Your task to perform on an android device: Go to network settings Image 0: 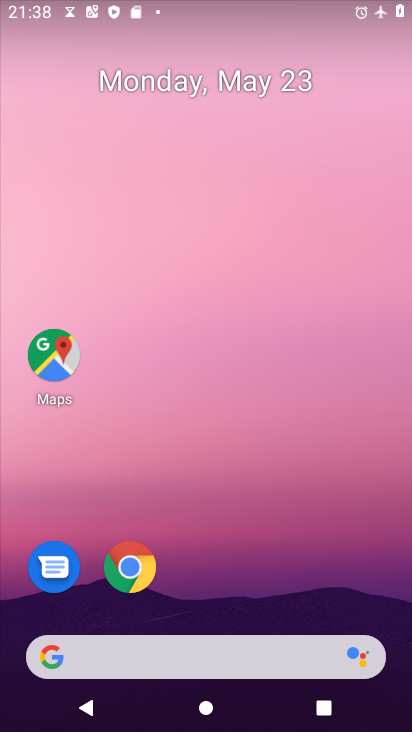
Step 0: drag from (256, 608) to (260, 166)
Your task to perform on an android device: Go to network settings Image 1: 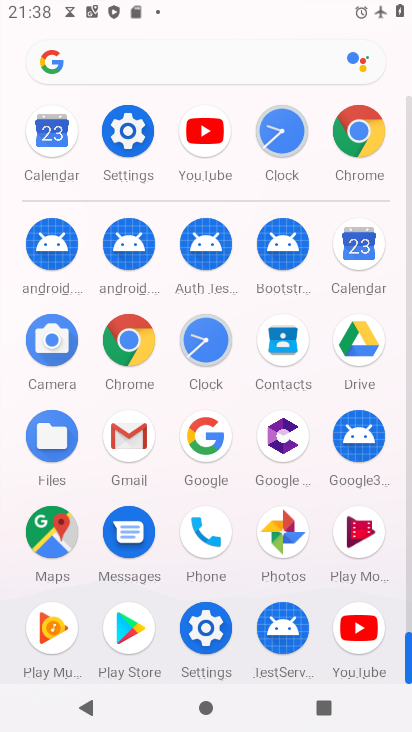
Step 1: click (139, 131)
Your task to perform on an android device: Go to network settings Image 2: 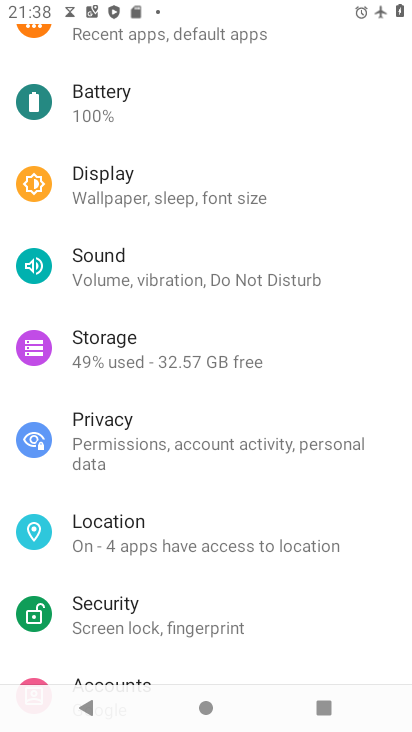
Step 2: drag from (168, 80) to (191, 522)
Your task to perform on an android device: Go to network settings Image 3: 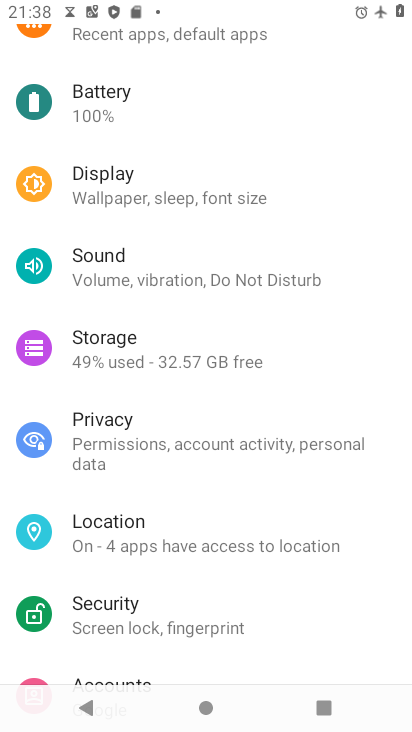
Step 3: drag from (194, 229) to (218, 364)
Your task to perform on an android device: Go to network settings Image 4: 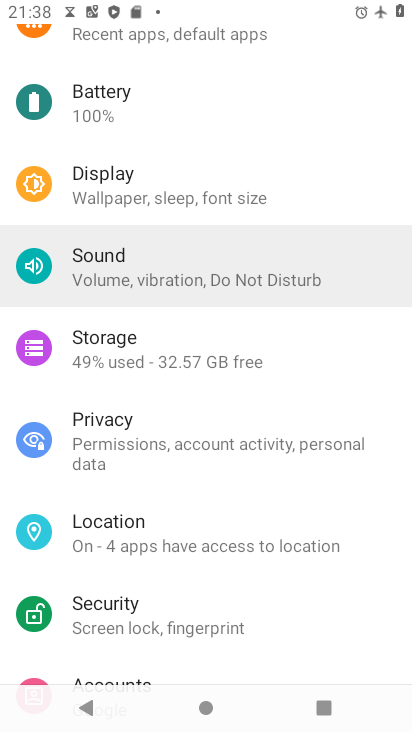
Step 4: drag from (211, 119) to (212, 487)
Your task to perform on an android device: Go to network settings Image 5: 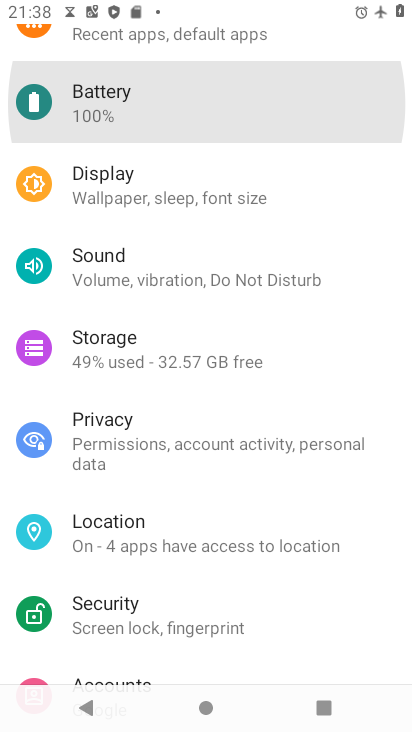
Step 5: drag from (221, 141) to (227, 508)
Your task to perform on an android device: Go to network settings Image 6: 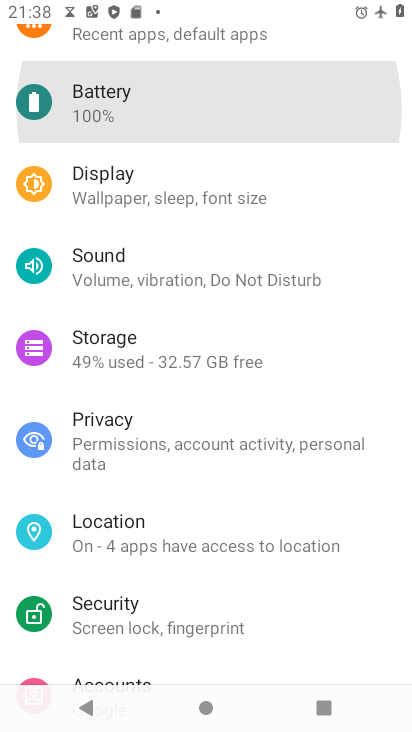
Step 6: drag from (203, 168) to (216, 475)
Your task to perform on an android device: Go to network settings Image 7: 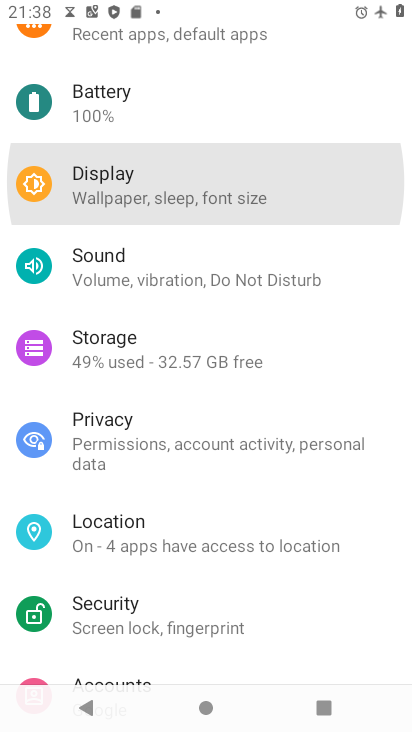
Step 7: drag from (193, 177) to (215, 458)
Your task to perform on an android device: Go to network settings Image 8: 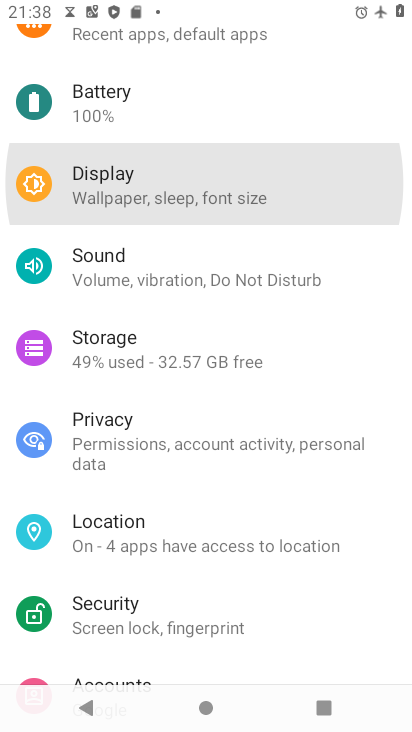
Step 8: drag from (151, 97) to (184, 427)
Your task to perform on an android device: Go to network settings Image 9: 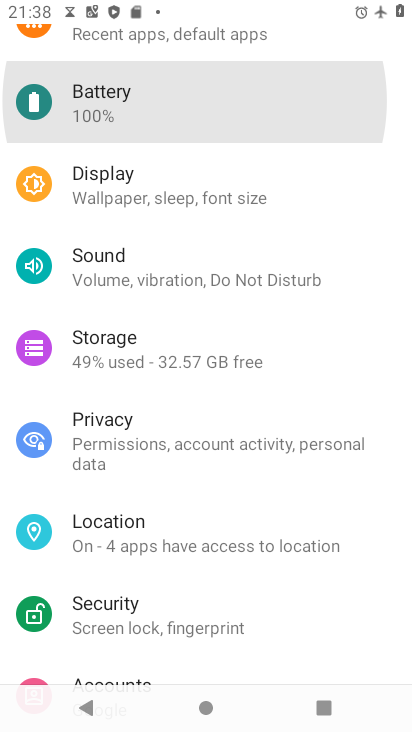
Step 9: drag from (156, 116) to (164, 391)
Your task to perform on an android device: Go to network settings Image 10: 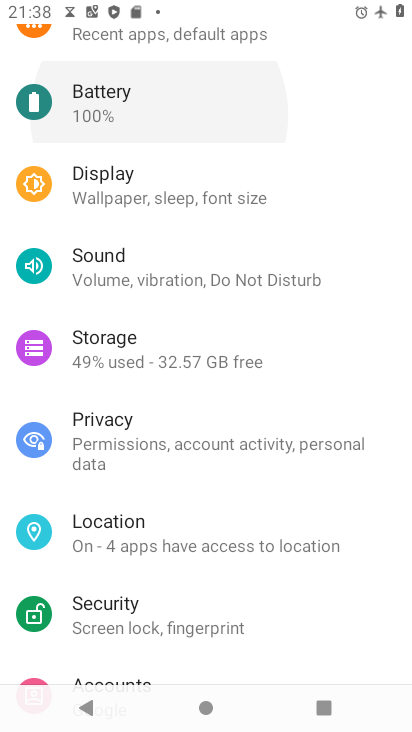
Step 10: drag from (136, 103) to (167, 396)
Your task to perform on an android device: Go to network settings Image 11: 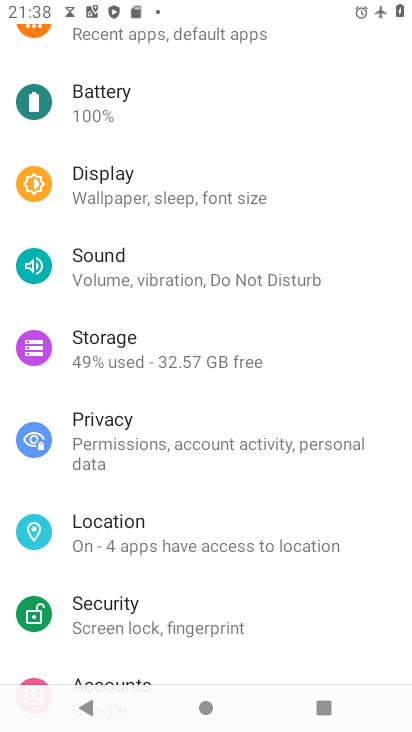
Step 11: drag from (181, 198) to (193, 402)
Your task to perform on an android device: Go to network settings Image 12: 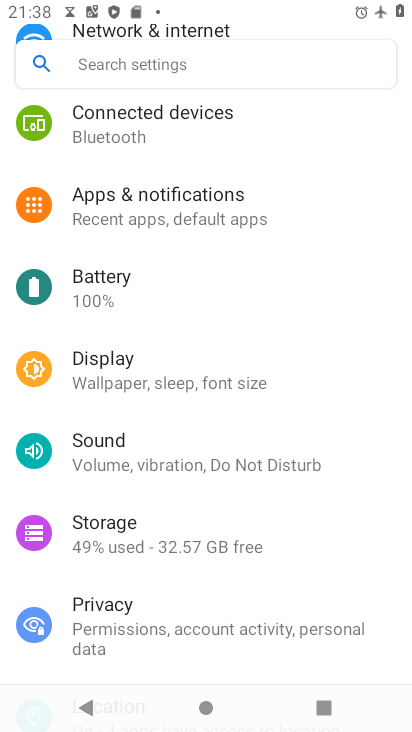
Step 12: drag from (187, 154) to (209, 274)
Your task to perform on an android device: Go to network settings Image 13: 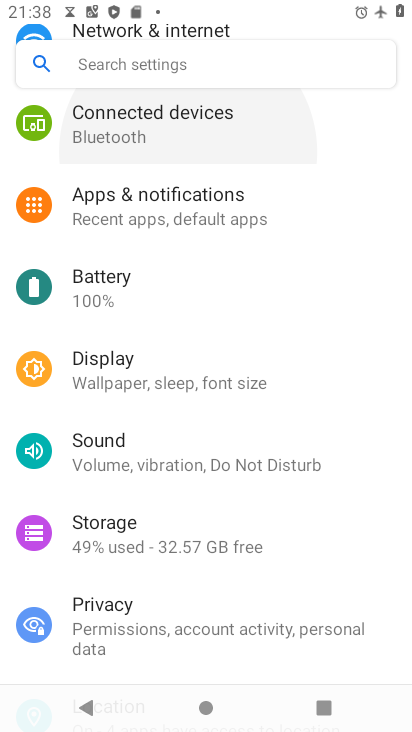
Step 13: drag from (221, 184) to (241, 415)
Your task to perform on an android device: Go to network settings Image 14: 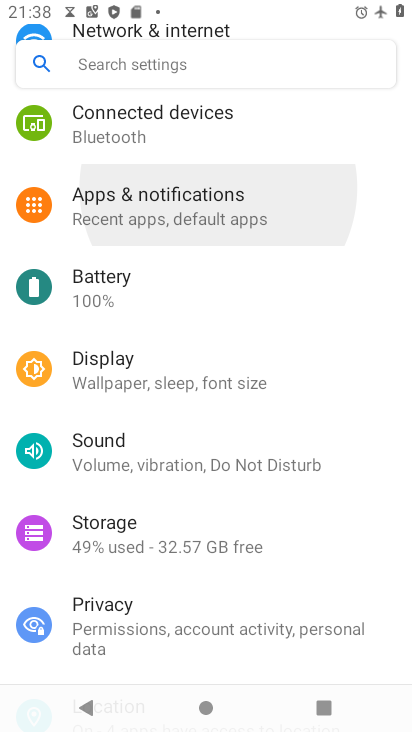
Step 14: drag from (251, 134) to (262, 387)
Your task to perform on an android device: Go to network settings Image 15: 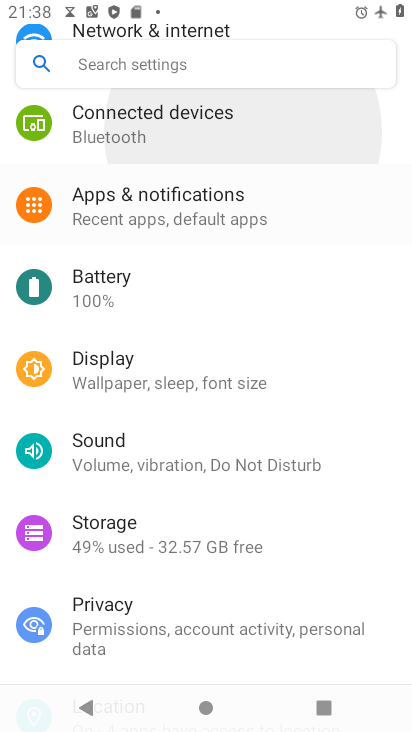
Step 15: drag from (243, 182) to (243, 280)
Your task to perform on an android device: Go to network settings Image 16: 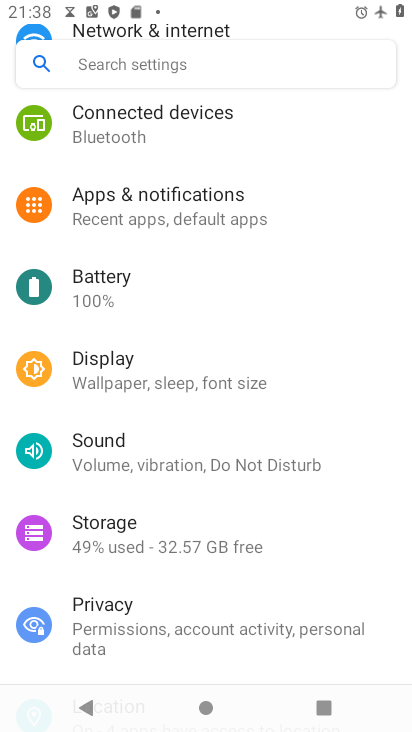
Step 16: drag from (203, 142) to (218, 475)
Your task to perform on an android device: Go to network settings Image 17: 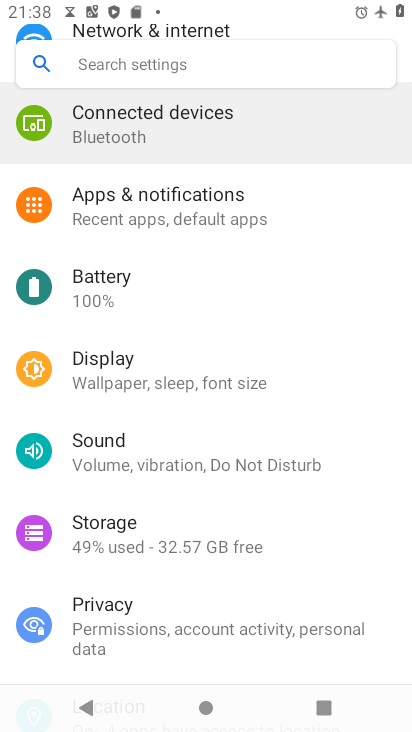
Step 17: drag from (209, 276) to (209, 323)
Your task to perform on an android device: Go to network settings Image 18: 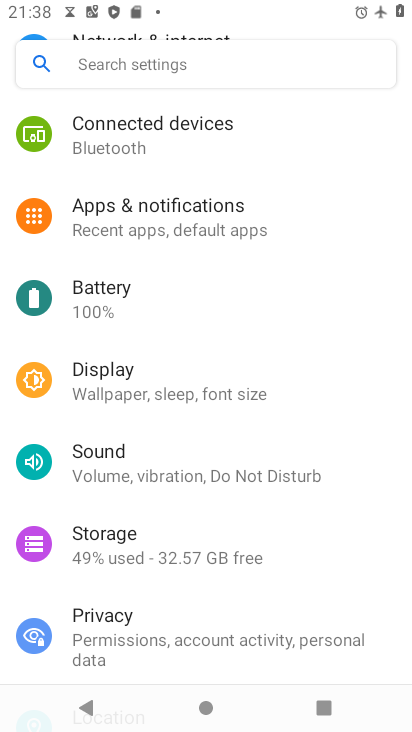
Step 18: drag from (206, 148) to (211, 678)
Your task to perform on an android device: Go to network settings Image 19: 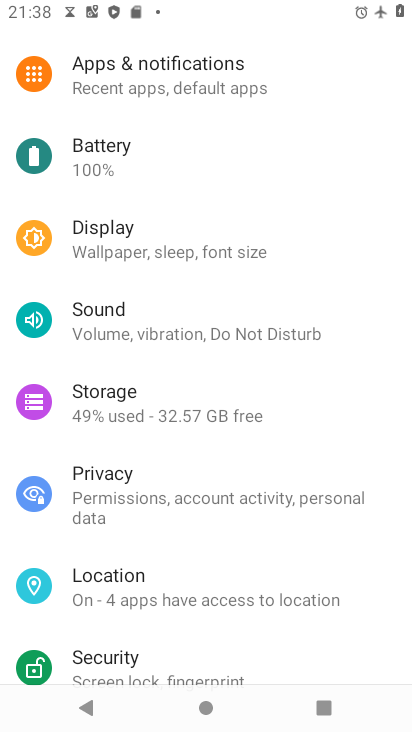
Step 19: drag from (184, 378) to (191, 547)
Your task to perform on an android device: Go to network settings Image 20: 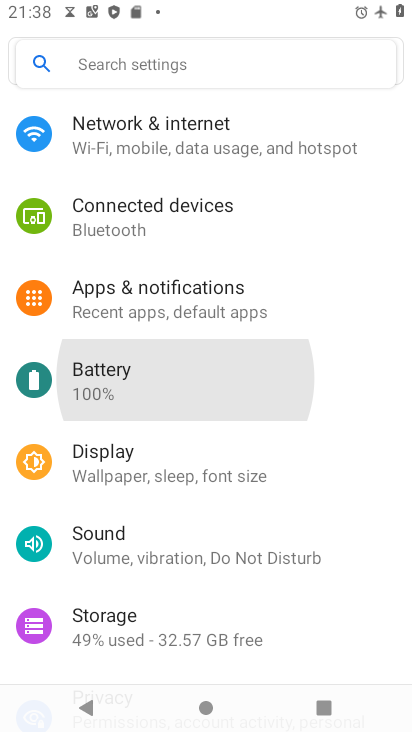
Step 20: drag from (203, 311) to (221, 481)
Your task to perform on an android device: Go to network settings Image 21: 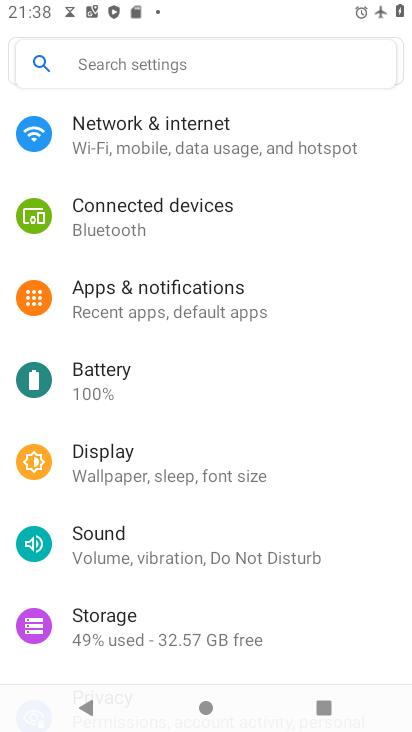
Step 21: click (194, 154)
Your task to perform on an android device: Go to network settings Image 22: 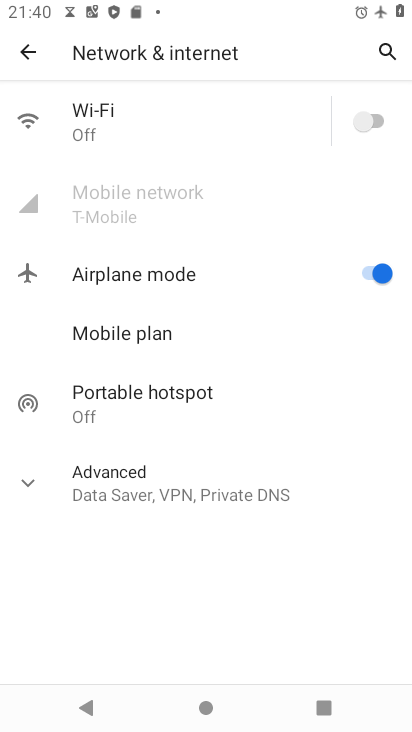
Step 22: task complete